Your task to perform on an android device: Open internet settings Image 0: 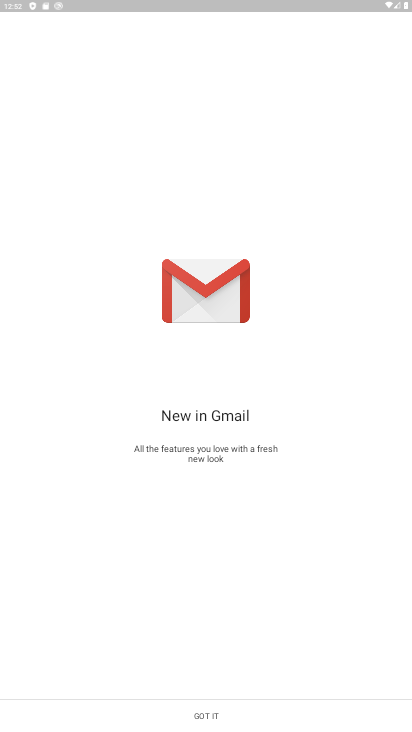
Step 0: press home button
Your task to perform on an android device: Open internet settings Image 1: 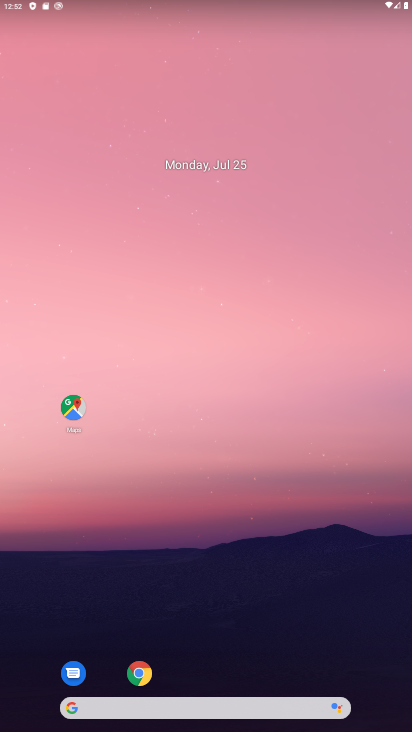
Step 1: drag from (377, 645) to (279, 96)
Your task to perform on an android device: Open internet settings Image 2: 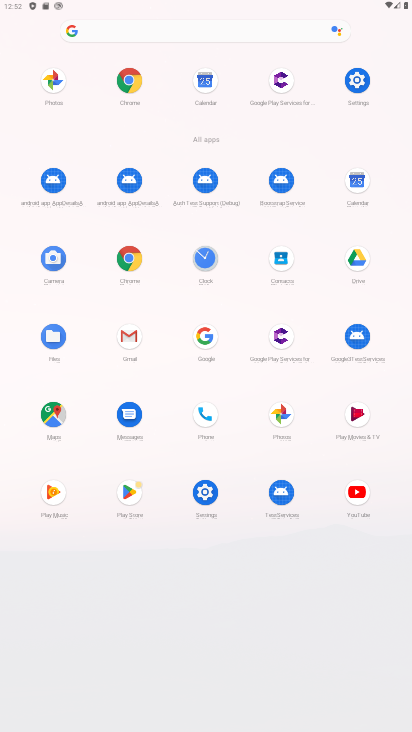
Step 2: click (206, 495)
Your task to perform on an android device: Open internet settings Image 3: 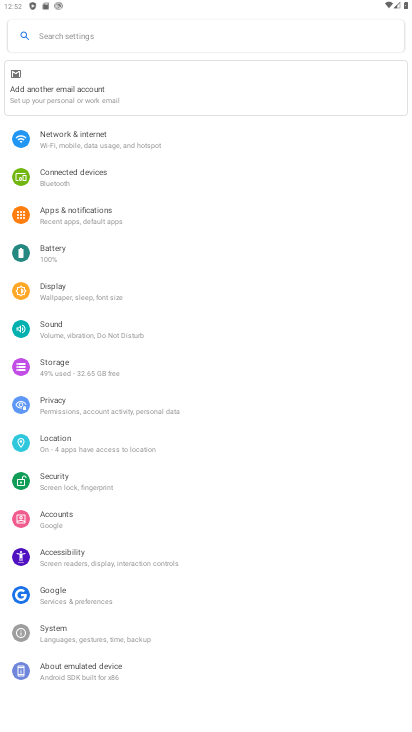
Step 3: click (63, 136)
Your task to perform on an android device: Open internet settings Image 4: 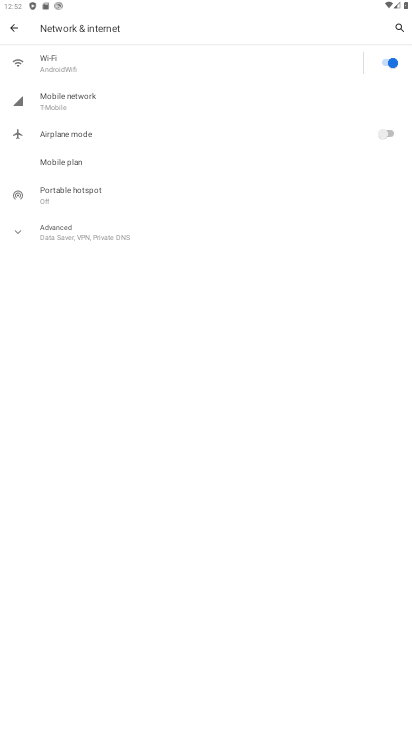
Step 4: click (45, 62)
Your task to perform on an android device: Open internet settings Image 5: 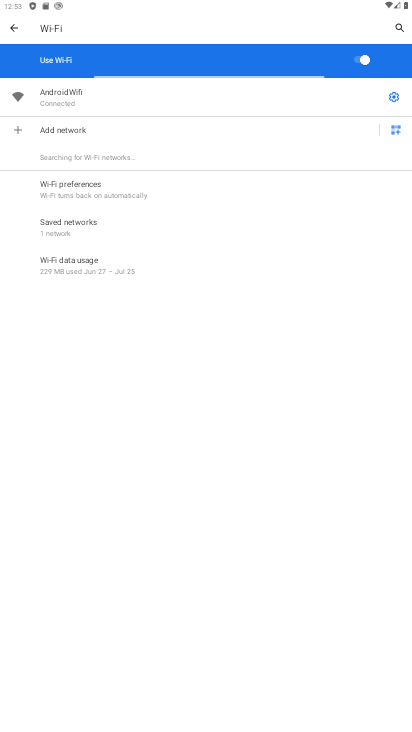
Step 5: task complete